Your task to perform on an android device: Search for top rated burger restaurants on Google Maps Image 0: 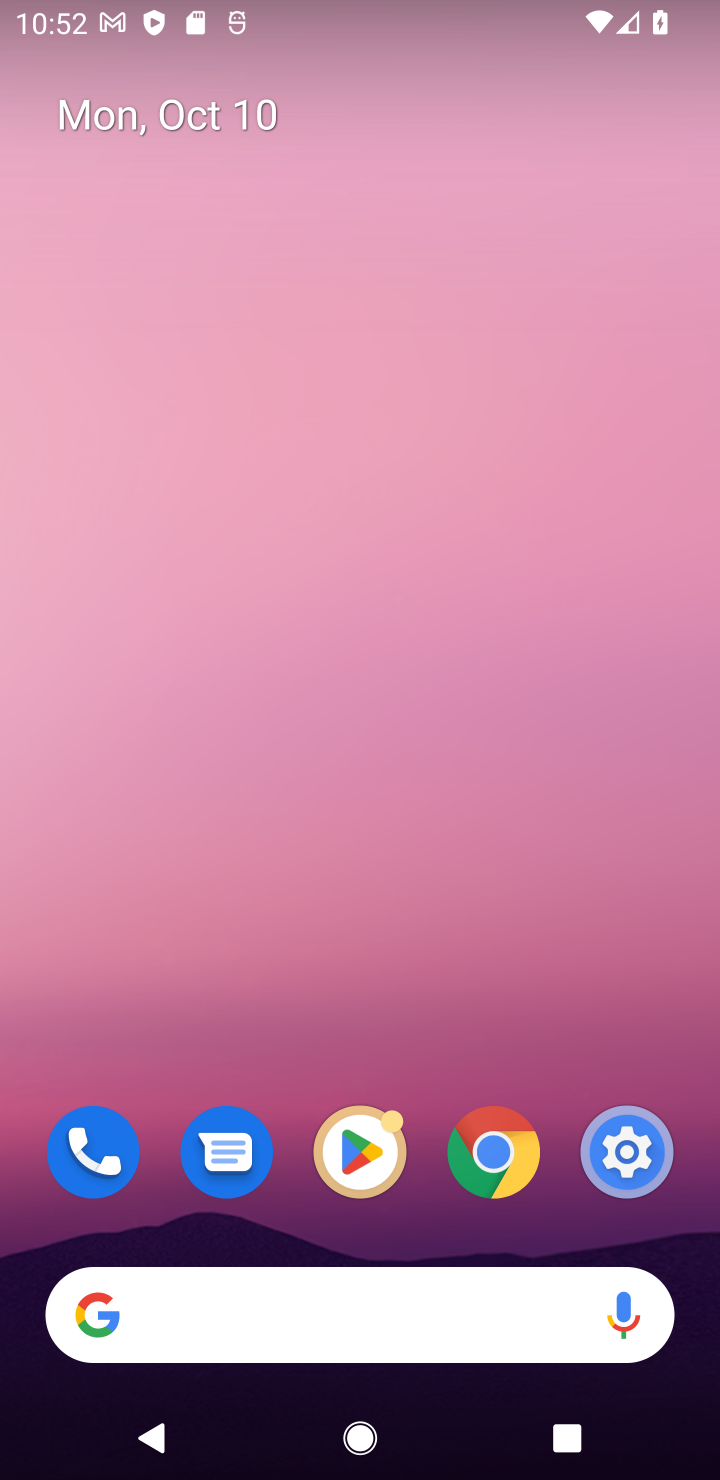
Step 0: click (472, 1173)
Your task to perform on an android device: Search for top rated burger restaurants on Google Maps Image 1: 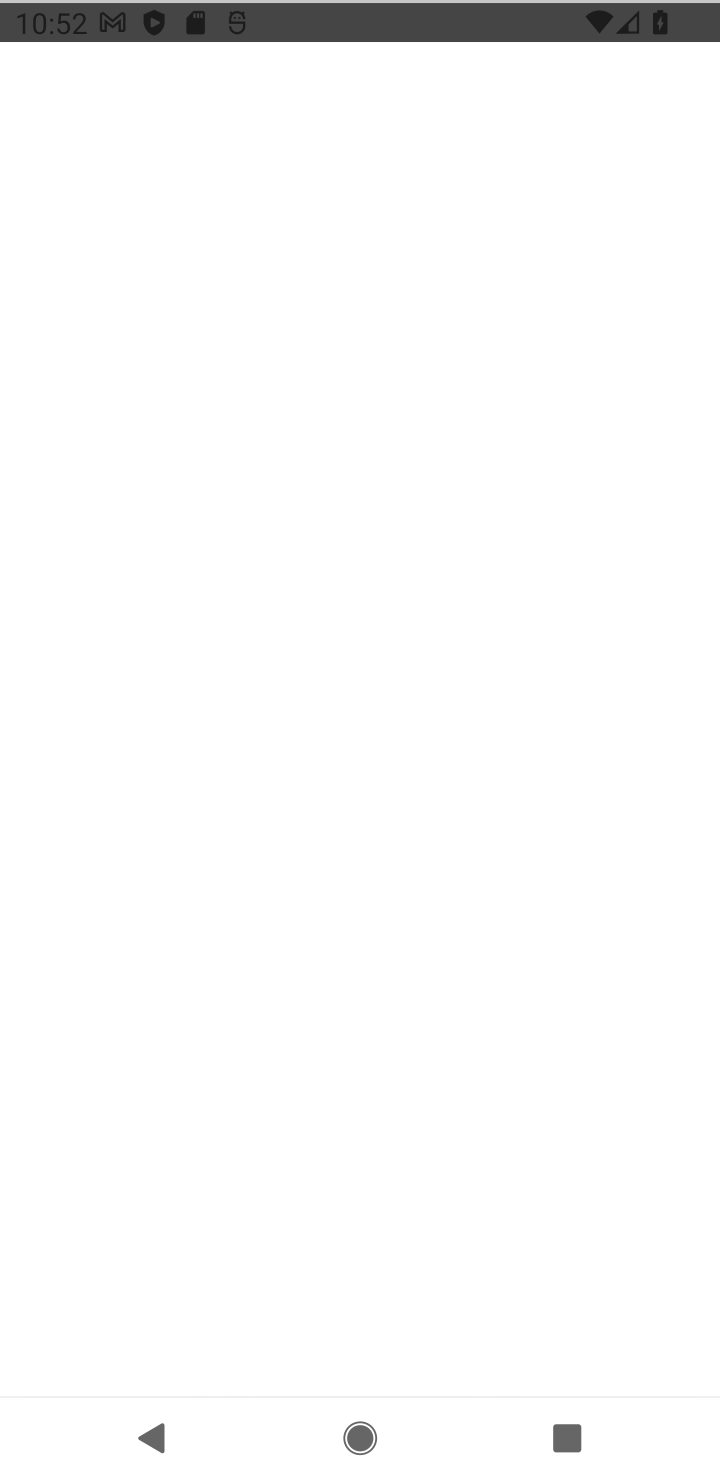
Step 1: click (491, 1192)
Your task to perform on an android device: Search for top rated burger restaurants on Google Maps Image 2: 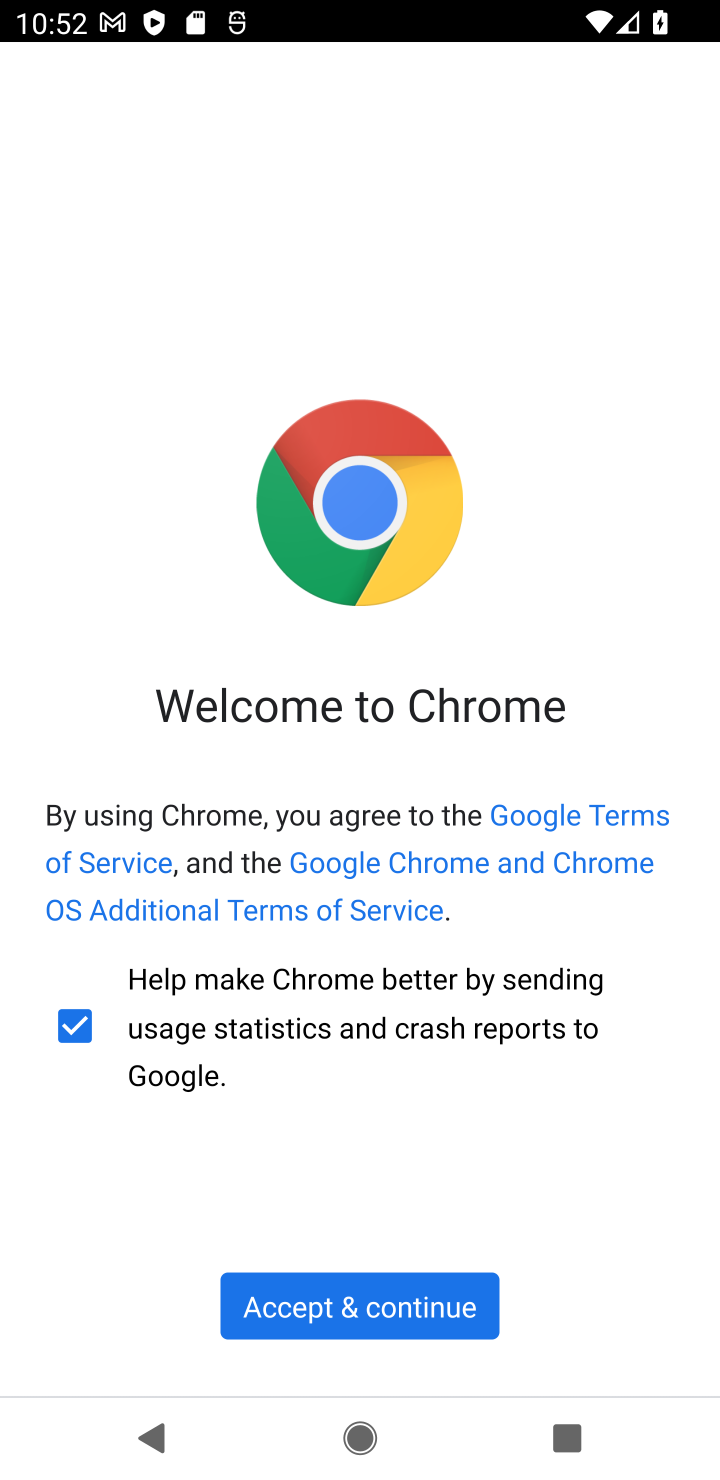
Step 2: click (392, 1288)
Your task to perform on an android device: Search for top rated burger restaurants on Google Maps Image 3: 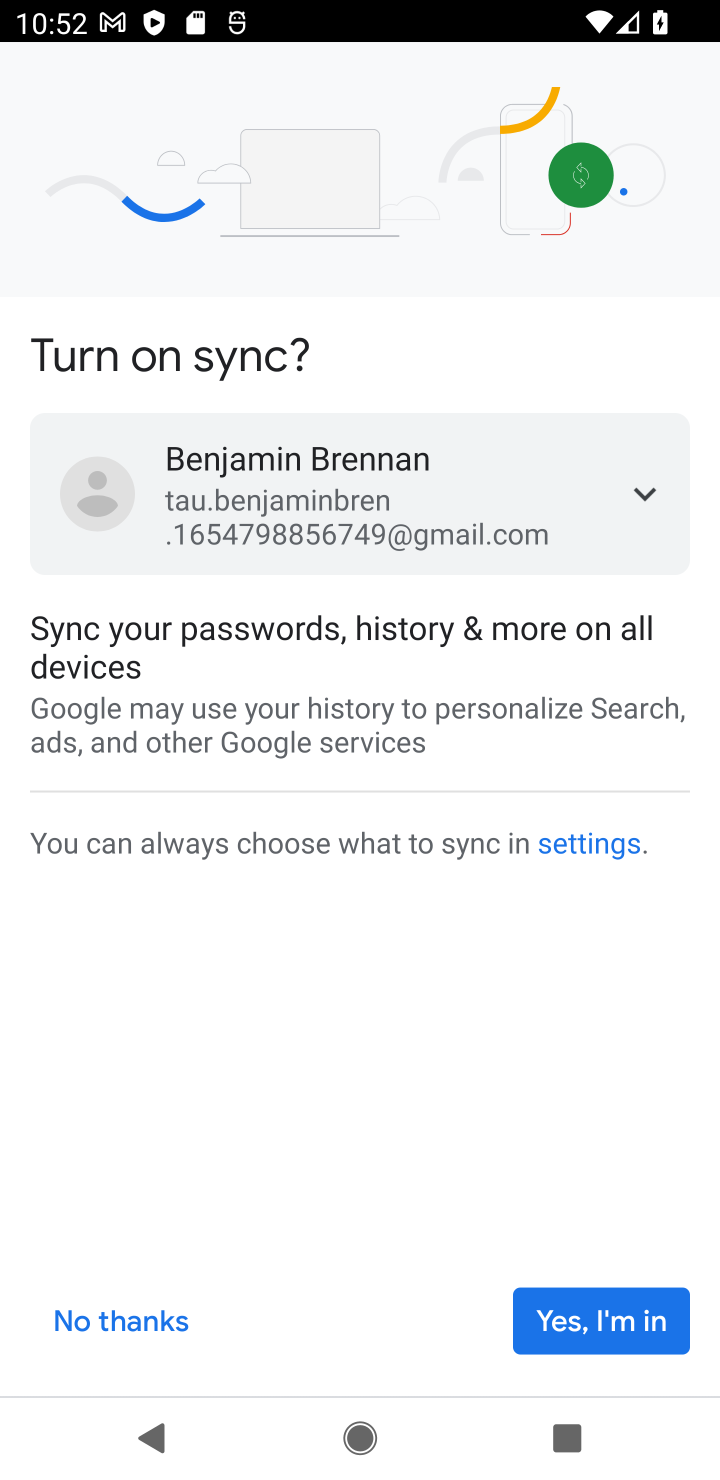
Step 3: click (653, 1319)
Your task to perform on an android device: Search for top rated burger restaurants on Google Maps Image 4: 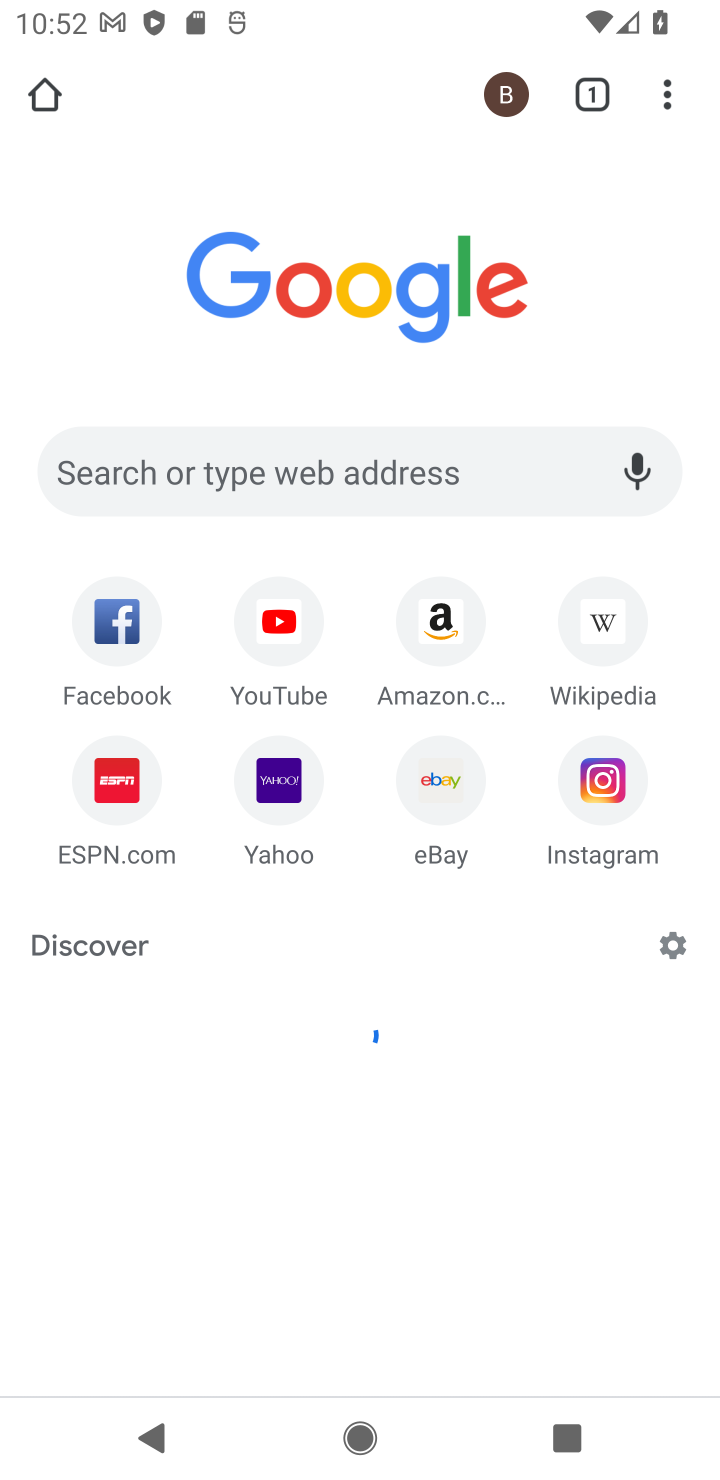
Step 4: click (427, 485)
Your task to perform on an android device: Search for top rated burger restaurants on Google Maps Image 5: 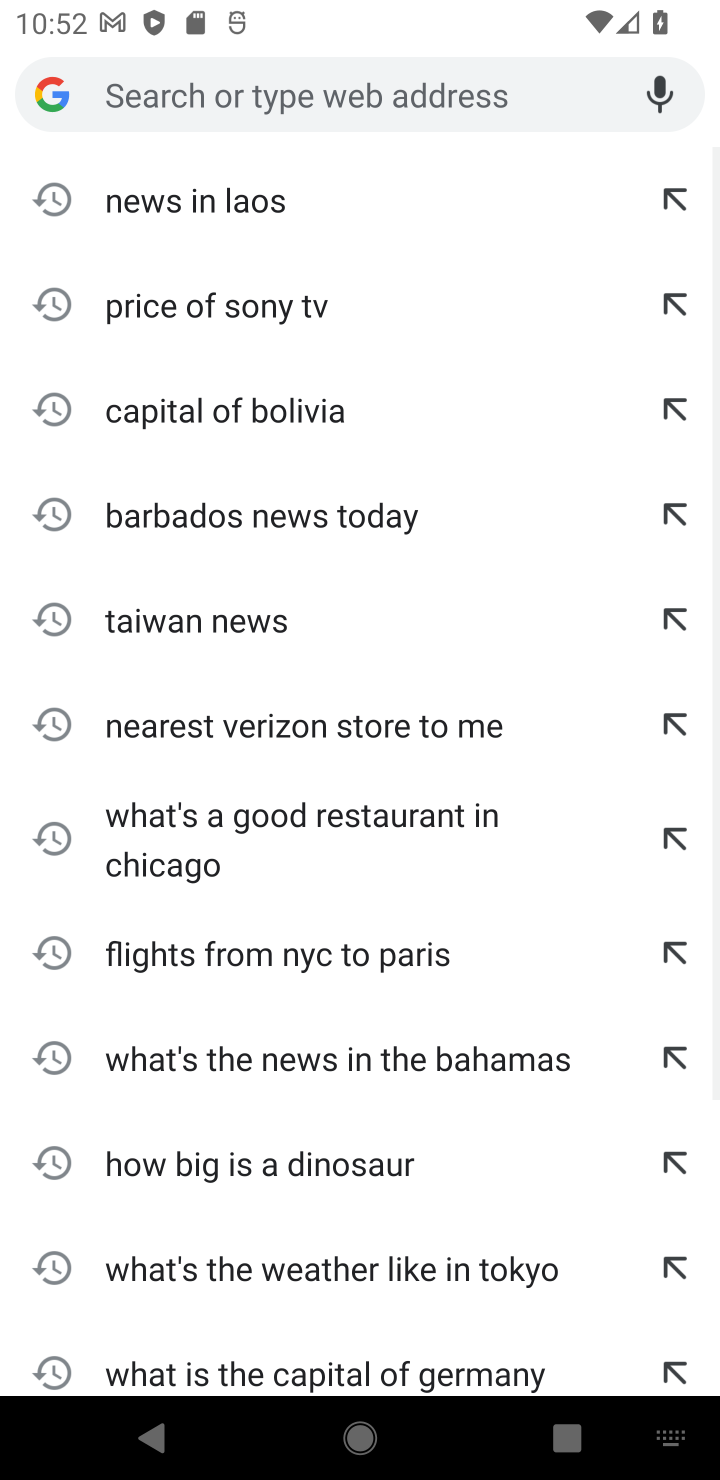
Step 5: type "top rated burger restaurants on Google Maps"
Your task to perform on an android device: Search for top rated burger restaurants on Google Maps Image 6: 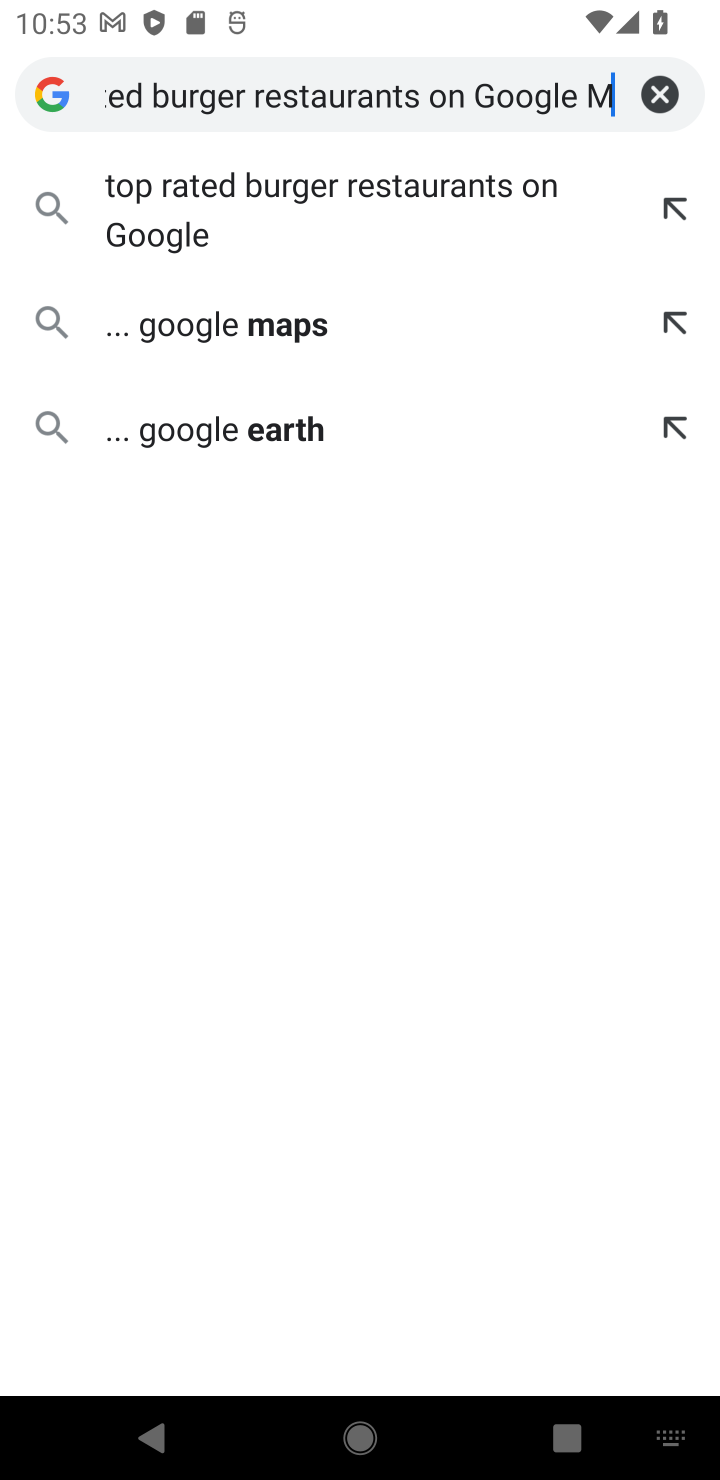
Step 6: type ""
Your task to perform on an android device: Search for top rated burger restaurants on Google Maps Image 7: 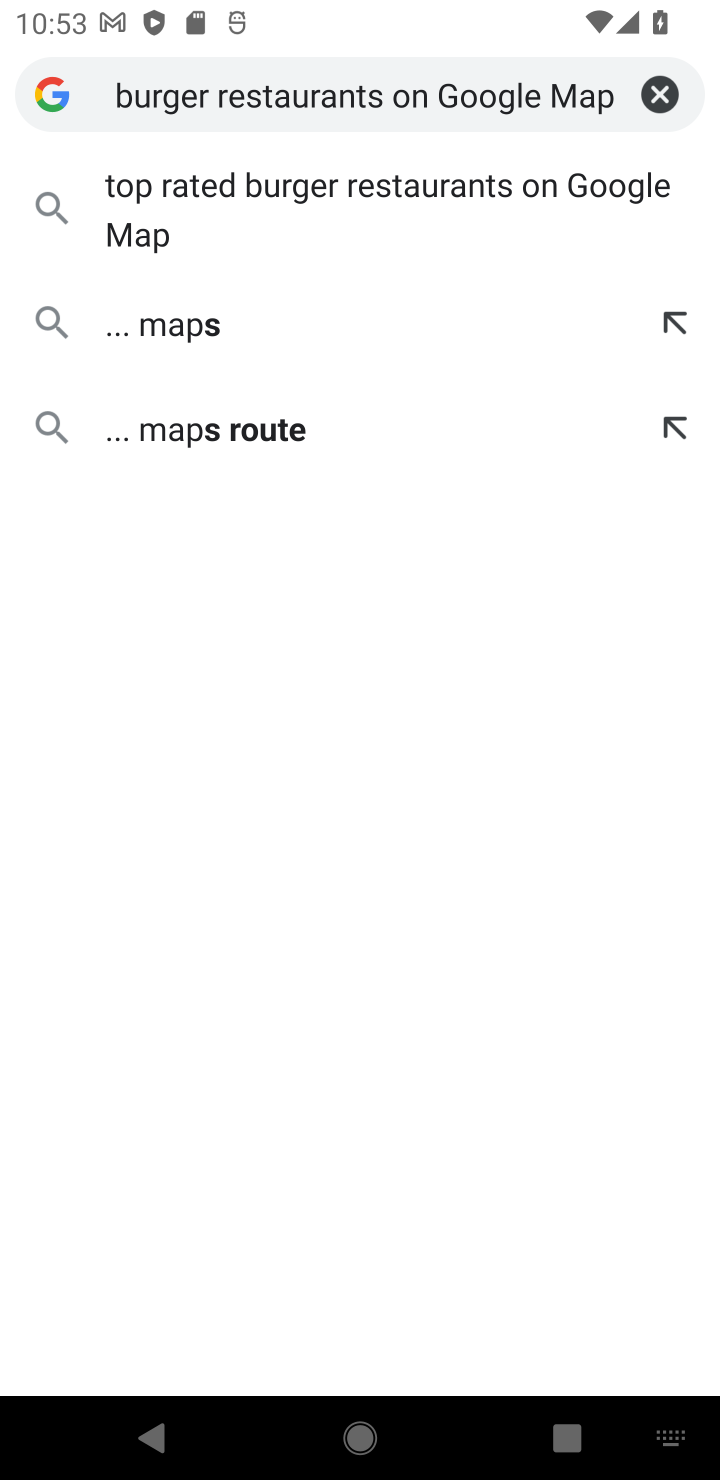
Step 7: click (312, 235)
Your task to perform on an android device: Search for top rated burger restaurants on Google Maps Image 8: 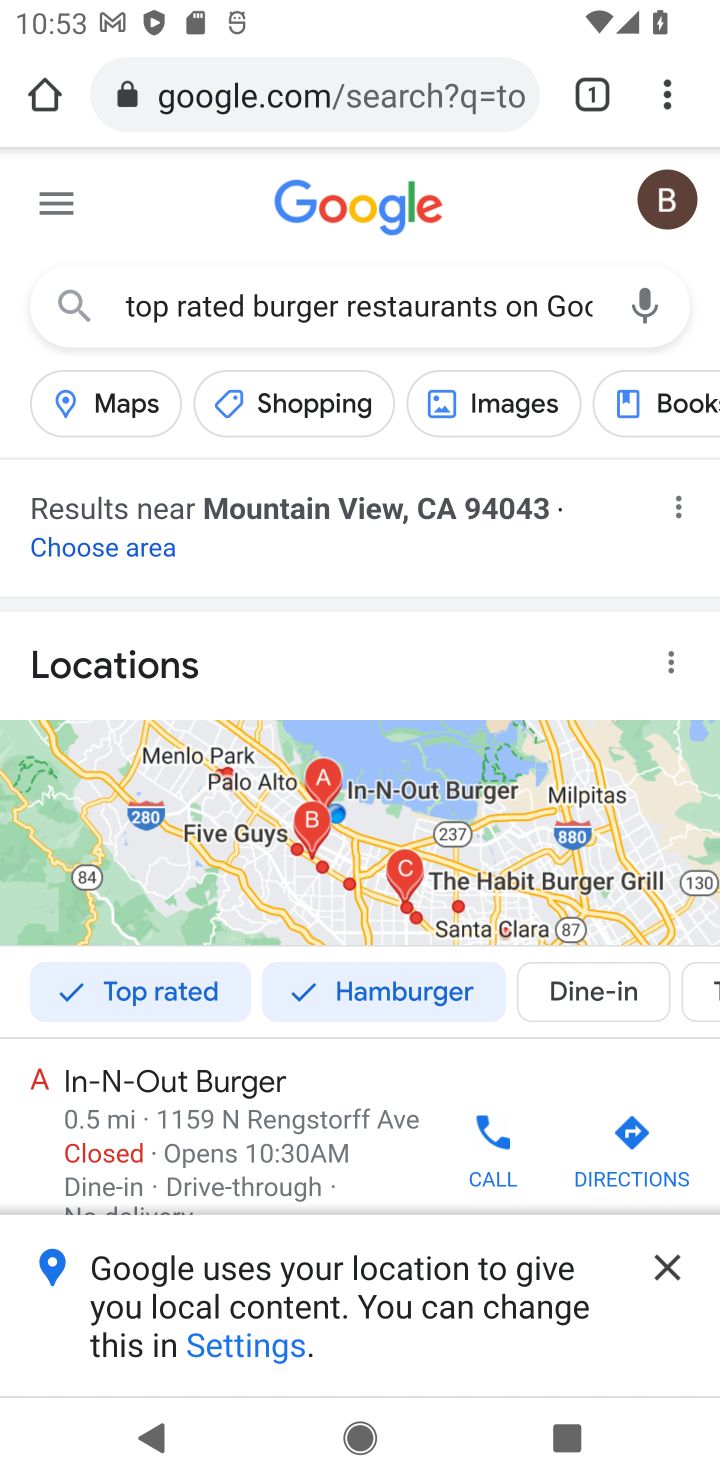
Step 8: click (289, 851)
Your task to perform on an android device: Search for top rated burger restaurants on Google Maps Image 9: 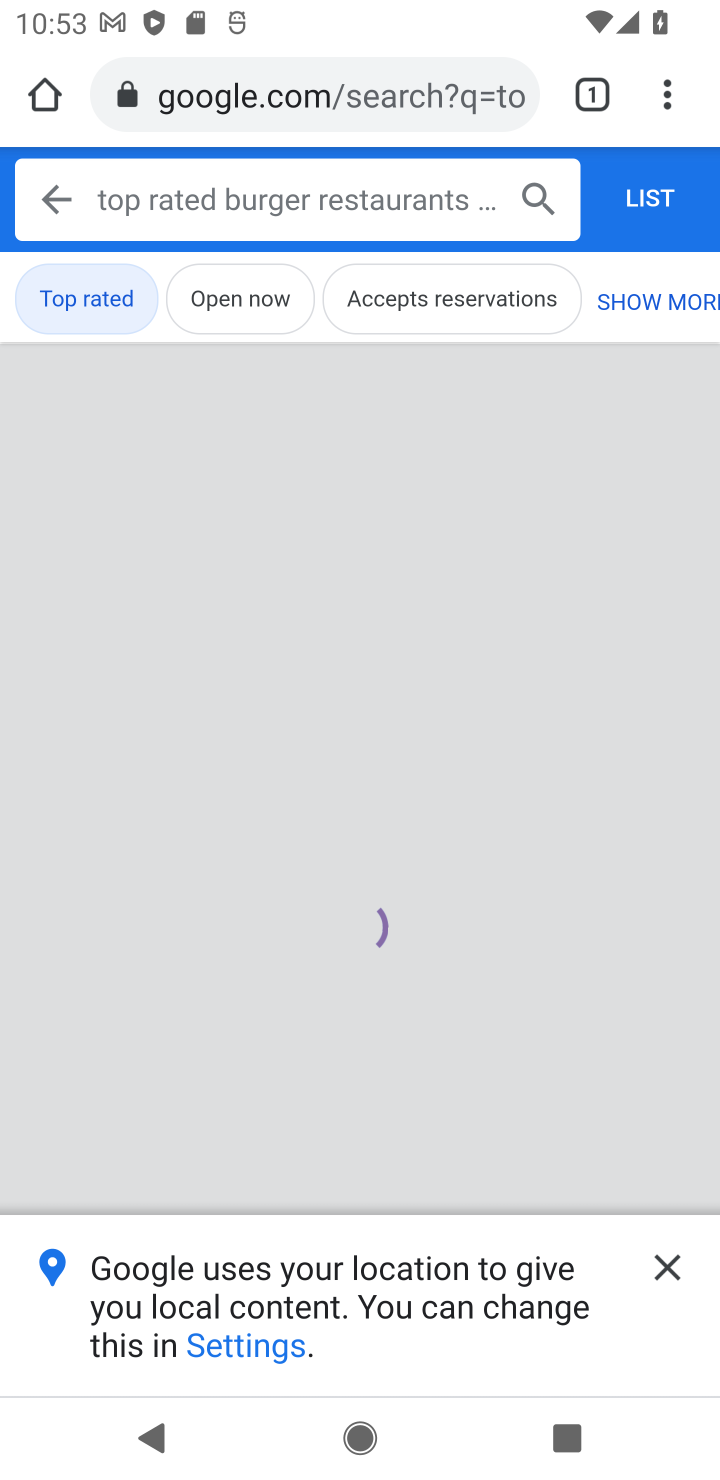
Step 9: drag from (277, 927) to (204, 323)
Your task to perform on an android device: Search for top rated burger restaurants on Google Maps Image 10: 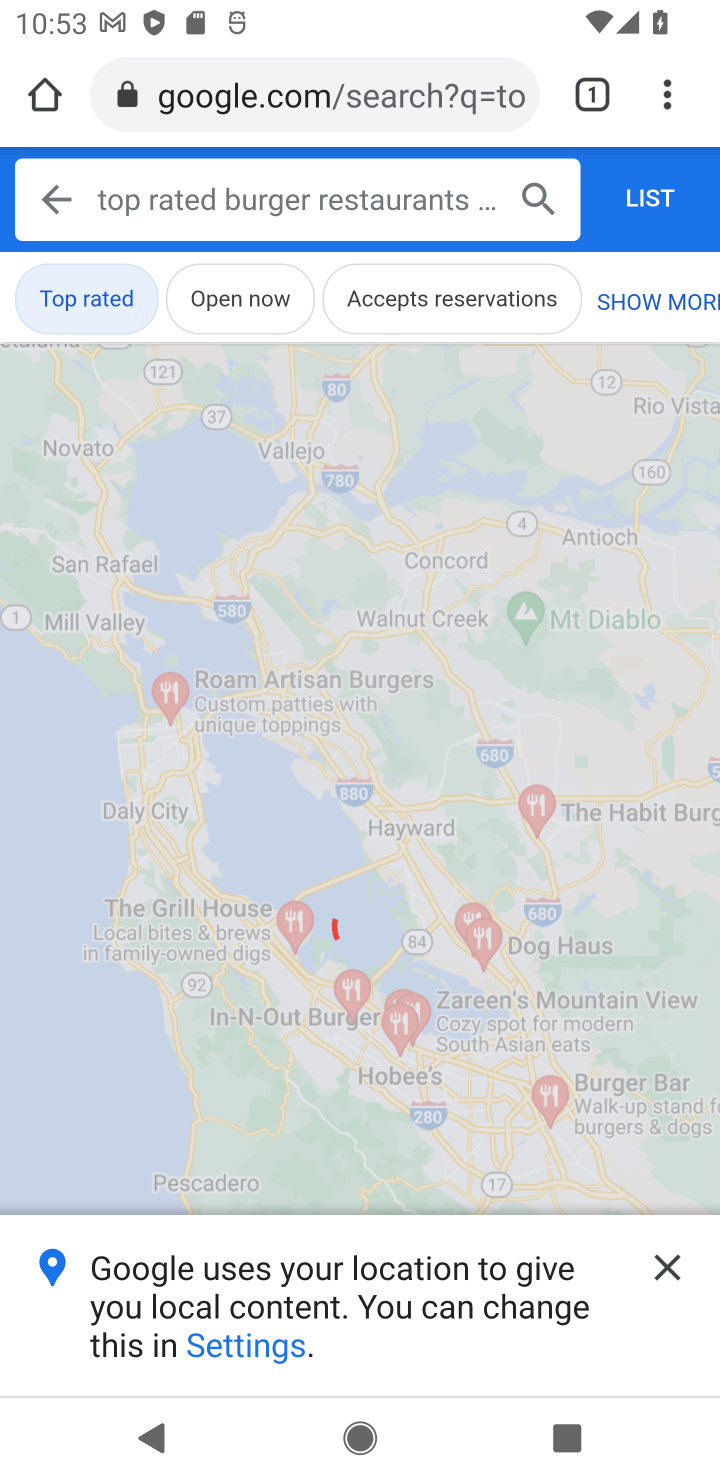
Step 10: click (673, 1252)
Your task to perform on an android device: Search for top rated burger restaurants on Google Maps Image 11: 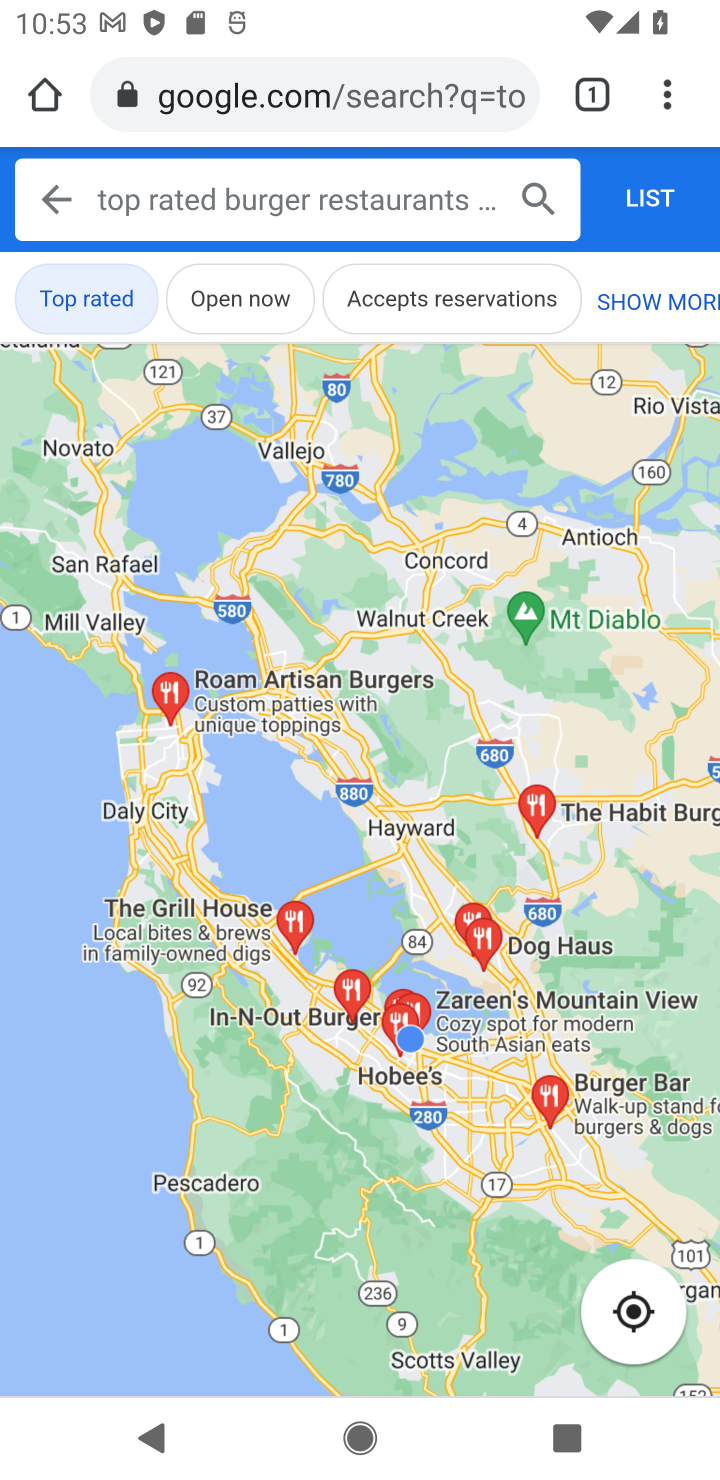
Step 11: drag from (377, 590) to (367, 410)
Your task to perform on an android device: Search for top rated burger restaurants on Google Maps Image 12: 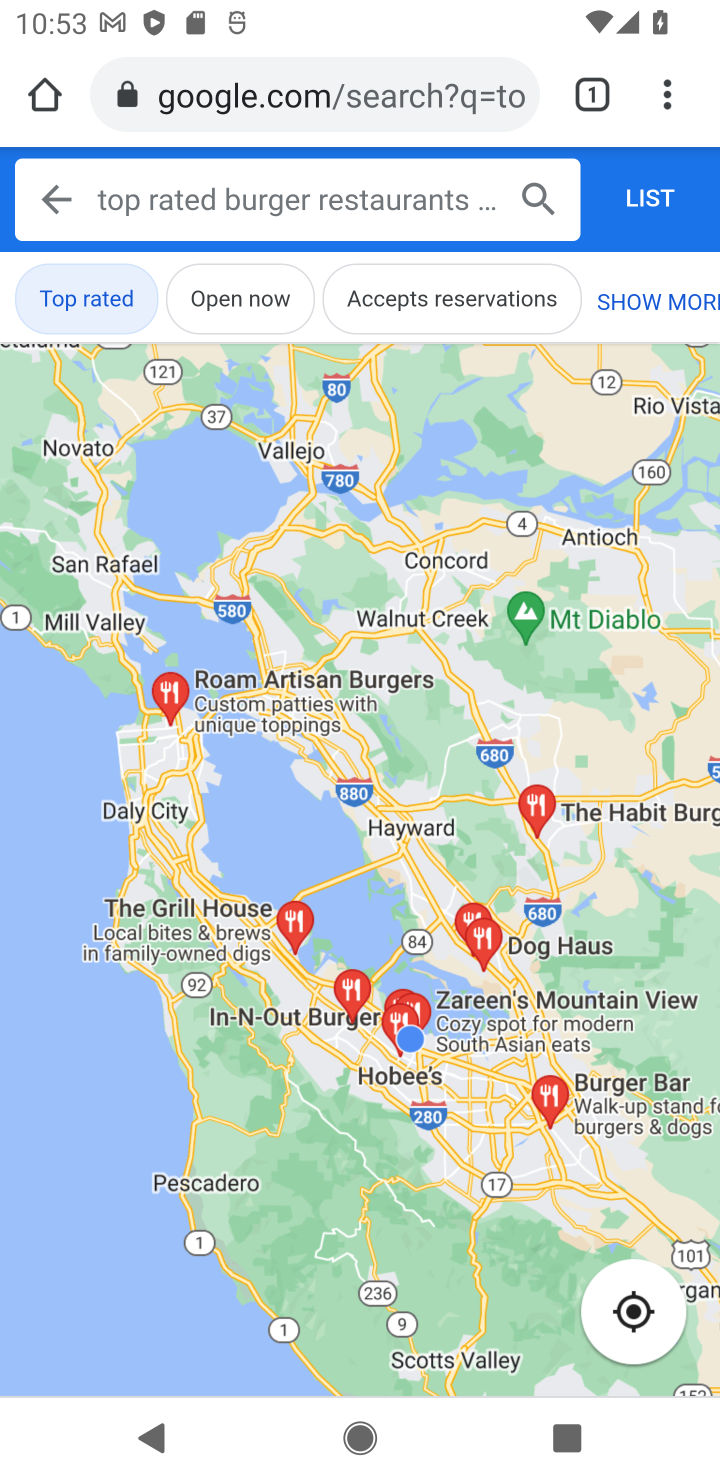
Step 12: drag from (343, 513) to (337, 372)
Your task to perform on an android device: Search for top rated burger restaurants on Google Maps Image 13: 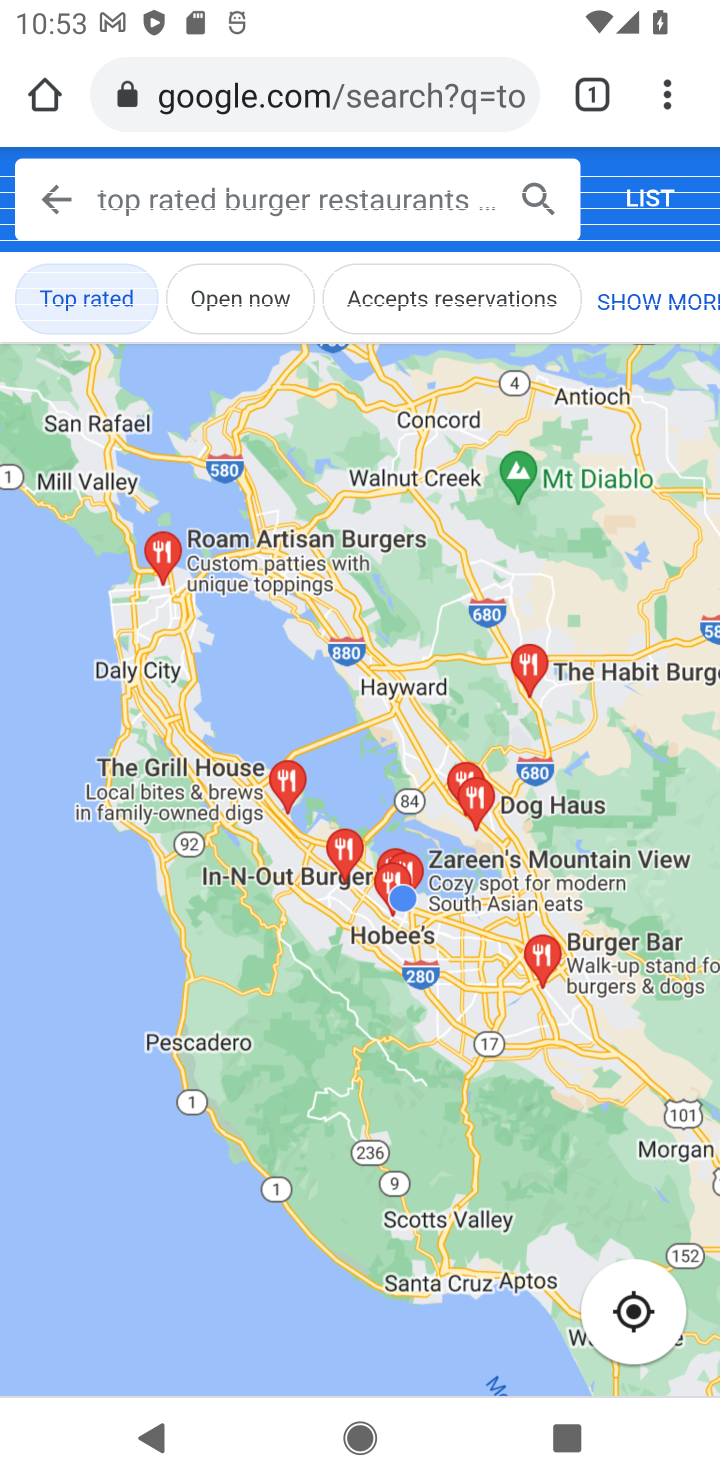
Step 13: click (370, 511)
Your task to perform on an android device: Search for top rated burger restaurants on Google Maps Image 14: 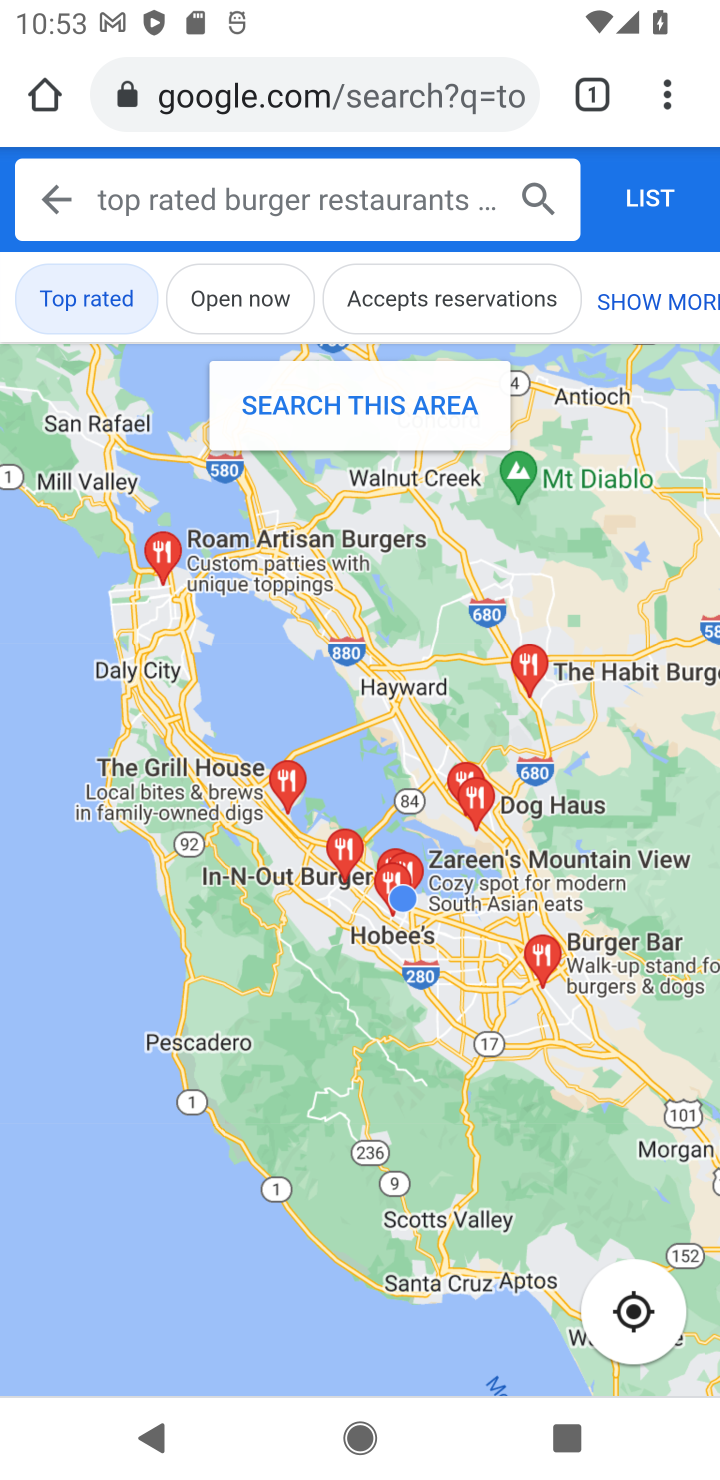
Step 14: drag from (413, 514) to (459, 592)
Your task to perform on an android device: Search for top rated burger restaurants on Google Maps Image 15: 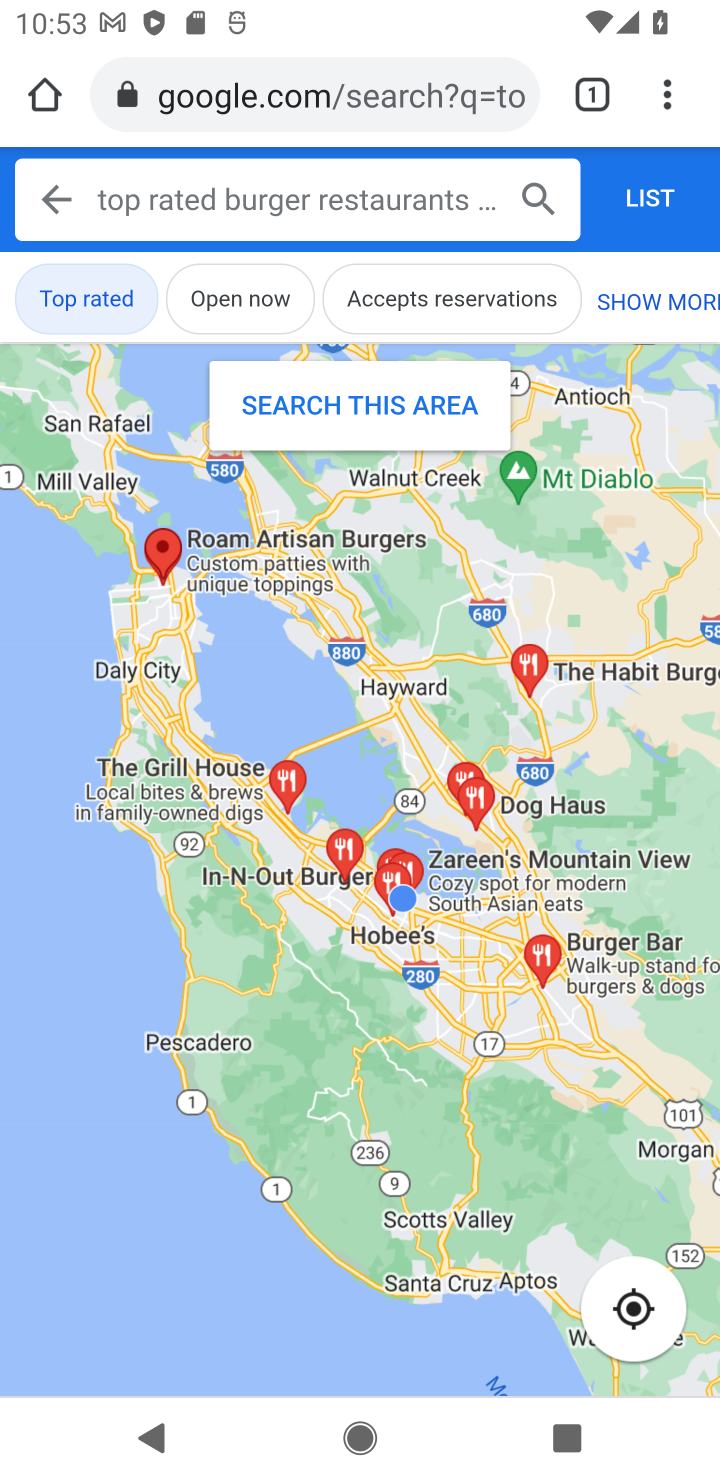
Step 15: click (493, 701)
Your task to perform on an android device: Search for top rated burger restaurants on Google Maps Image 16: 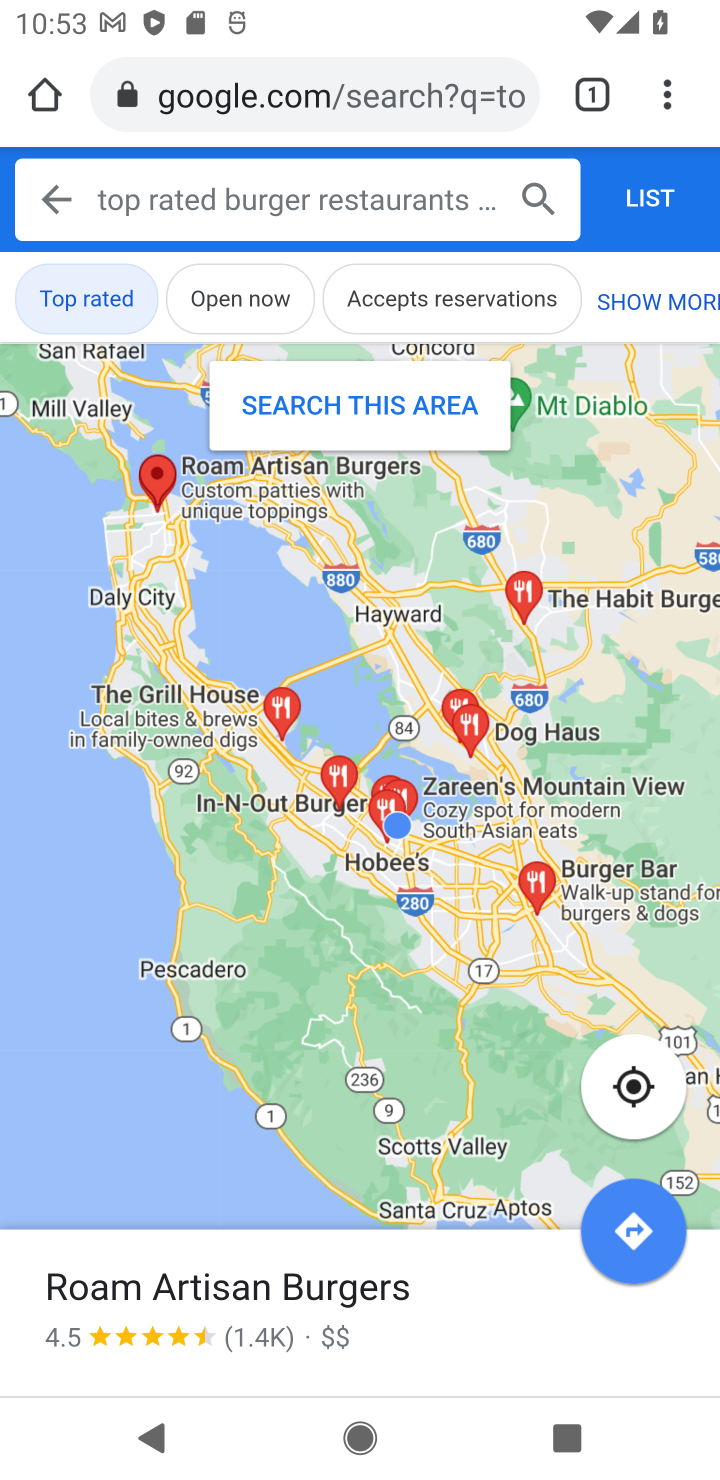
Step 16: drag from (444, 798) to (417, 606)
Your task to perform on an android device: Search for top rated burger restaurants on Google Maps Image 17: 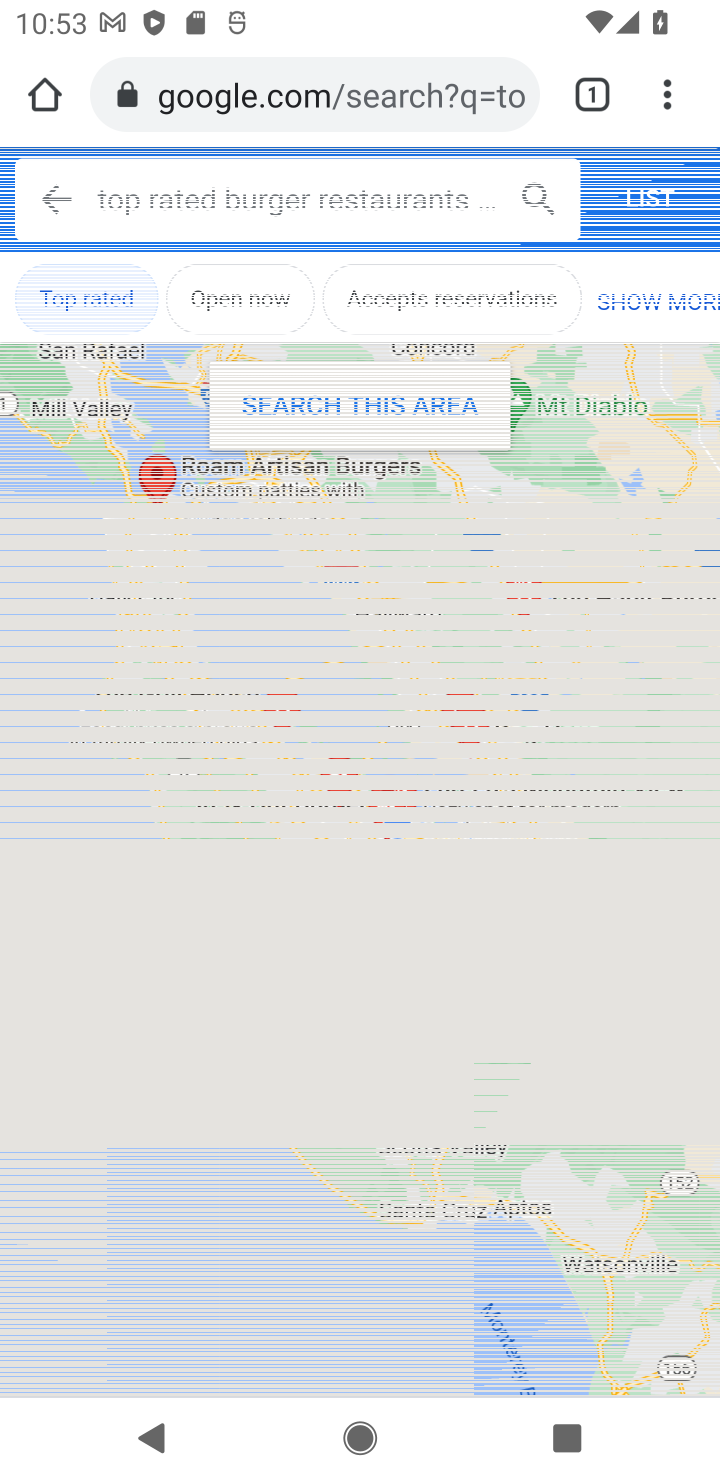
Step 17: drag from (529, 971) to (497, 527)
Your task to perform on an android device: Search for top rated burger restaurants on Google Maps Image 18: 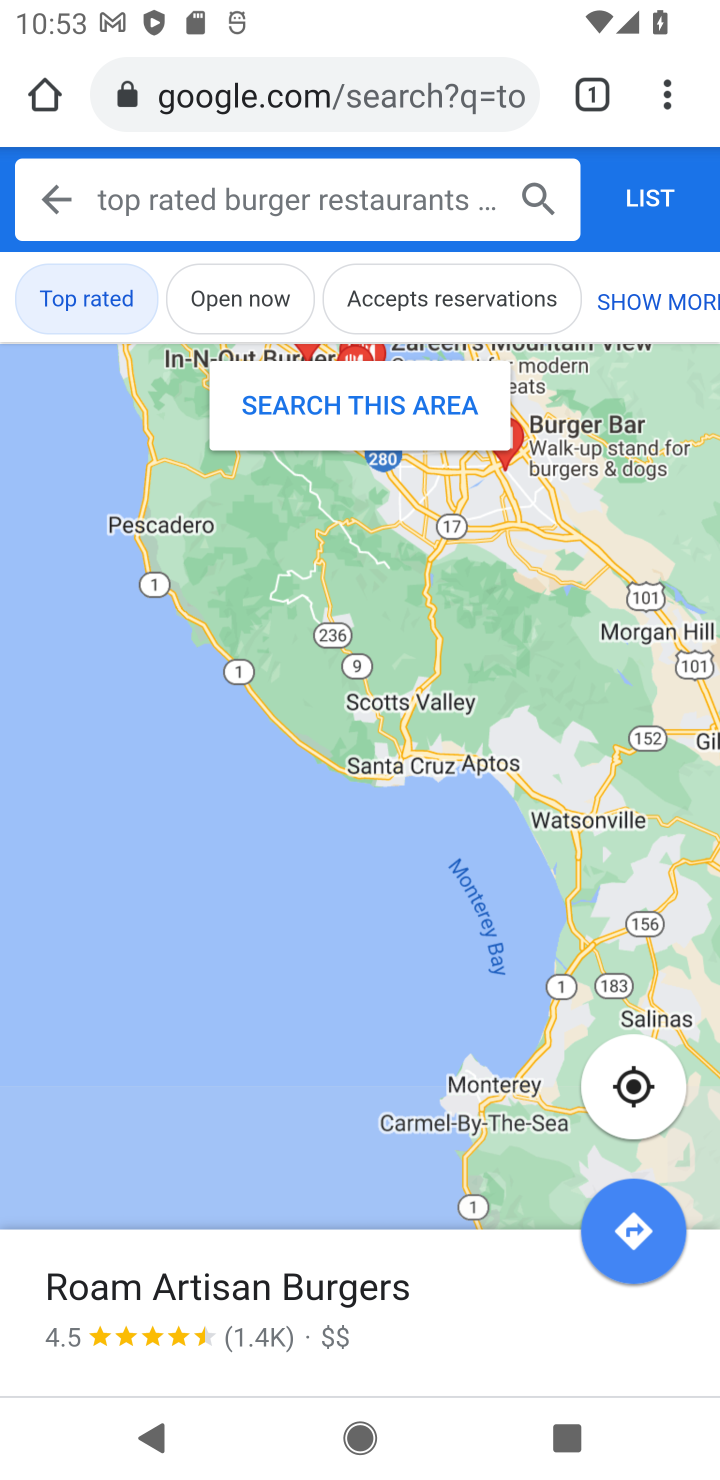
Step 18: drag from (493, 862) to (455, 503)
Your task to perform on an android device: Search for top rated burger restaurants on Google Maps Image 19: 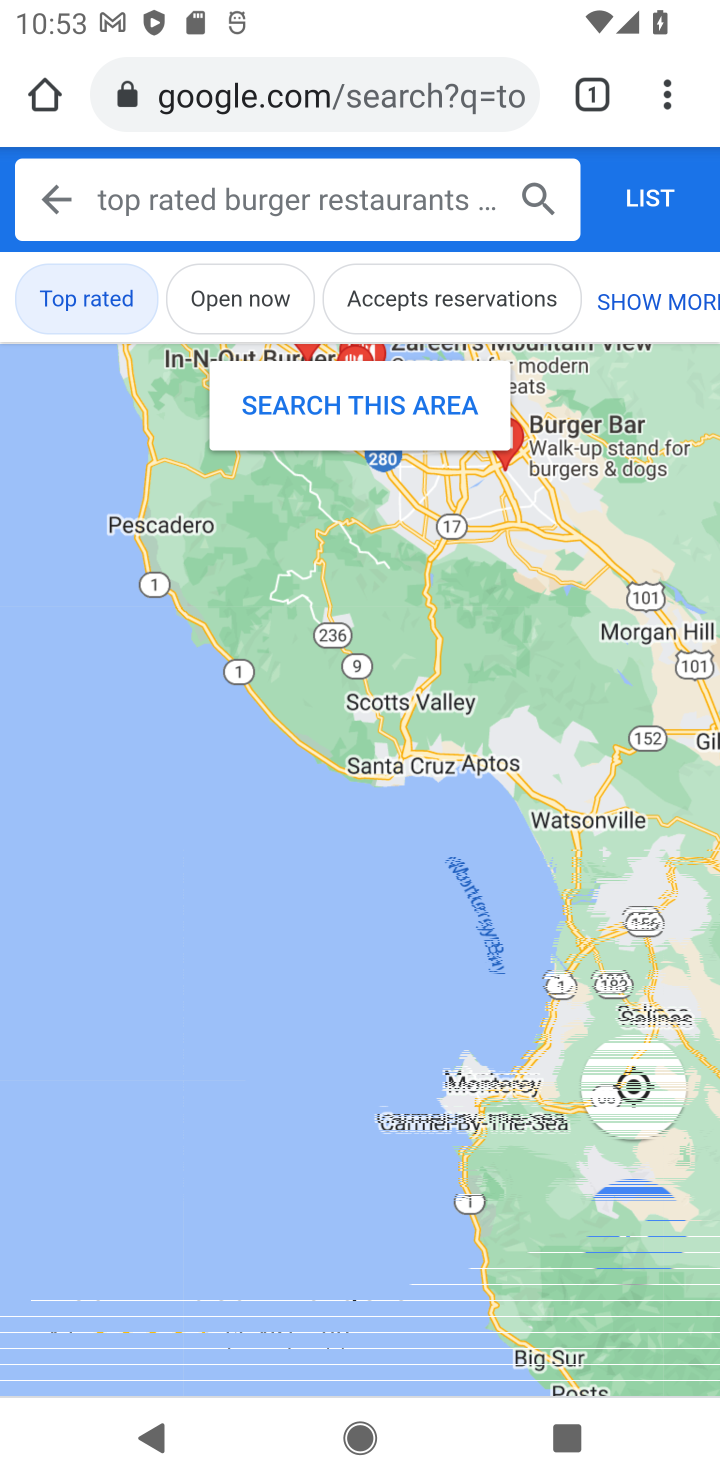
Step 19: drag from (434, 566) to (413, 443)
Your task to perform on an android device: Search for top rated burger restaurants on Google Maps Image 20: 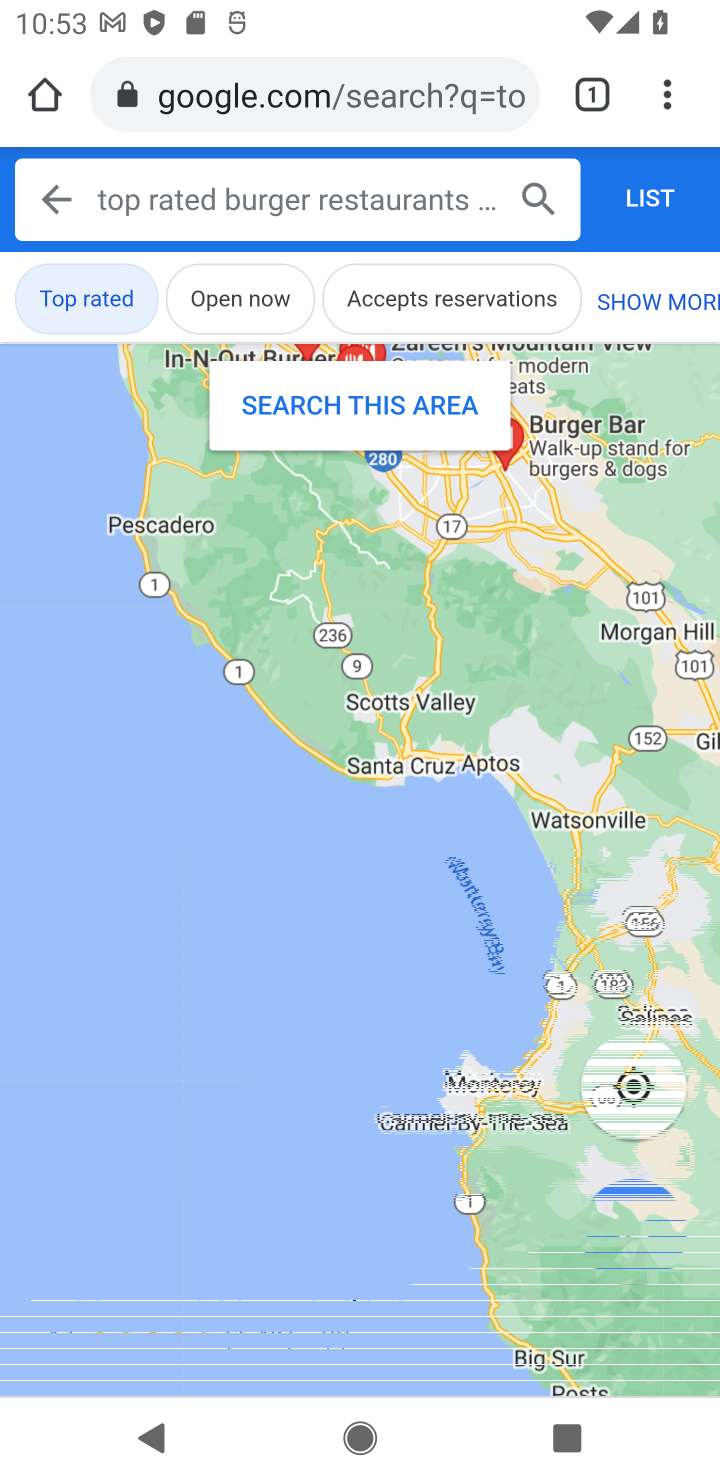
Step 20: click (438, 609)
Your task to perform on an android device: Search for top rated burger restaurants on Google Maps Image 21: 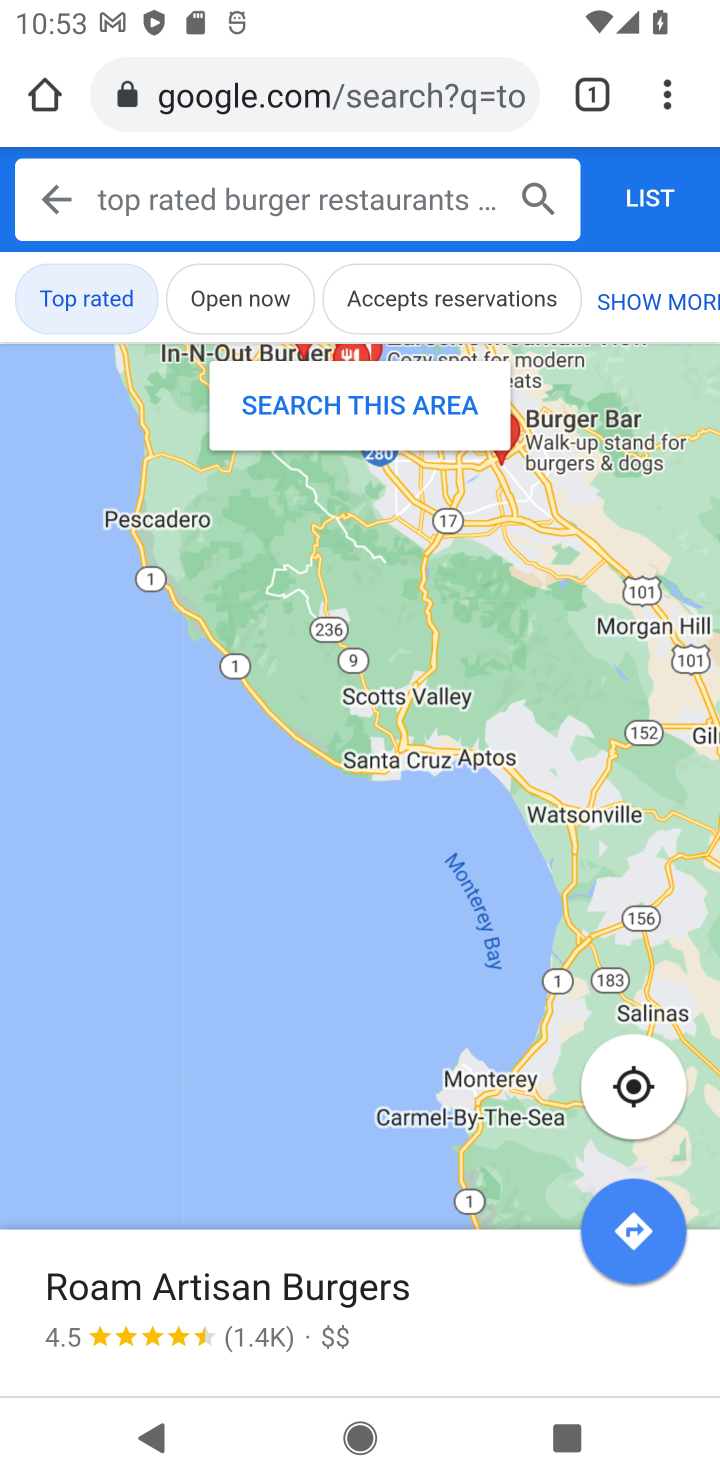
Step 21: task complete